Your task to perform on an android device: Search for Mexican restaurants on Maps Image 0: 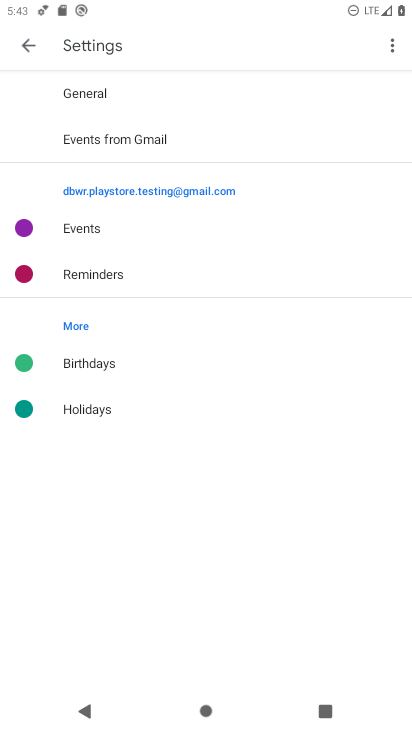
Step 0: press home button
Your task to perform on an android device: Search for Mexican restaurants on Maps Image 1: 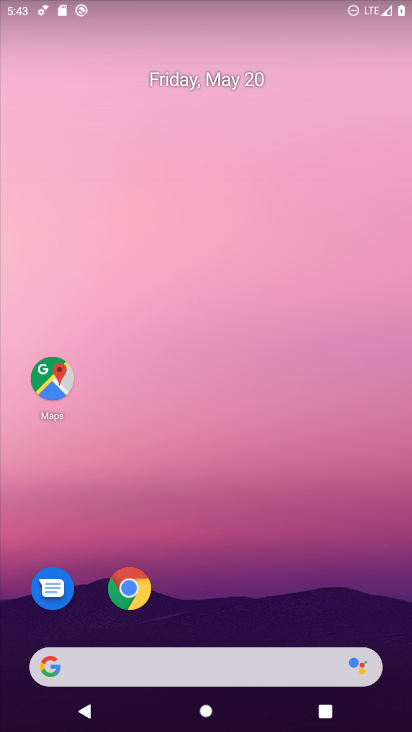
Step 1: drag from (237, 589) to (225, 83)
Your task to perform on an android device: Search for Mexican restaurants on Maps Image 2: 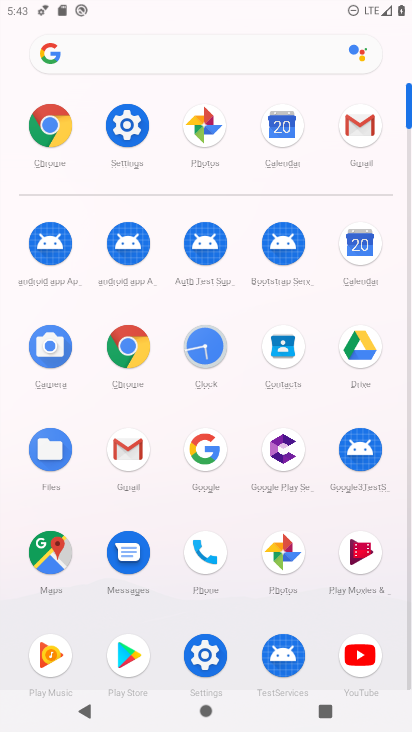
Step 2: click (41, 562)
Your task to perform on an android device: Search for Mexican restaurants on Maps Image 3: 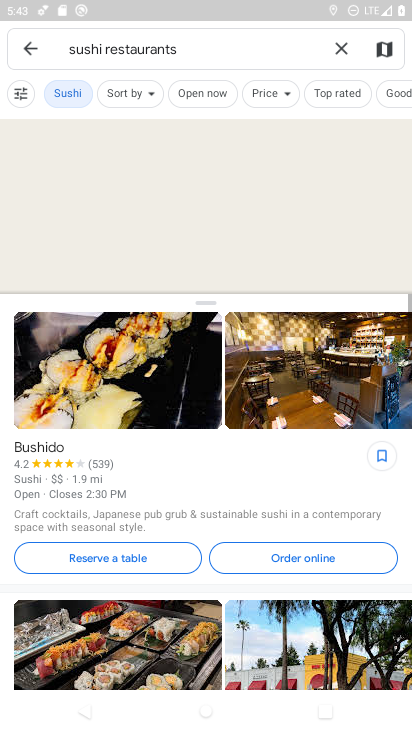
Step 3: click (340, 53)
Your task to perform on an android device: Search for Mexican restaurants on Maps Image 4: 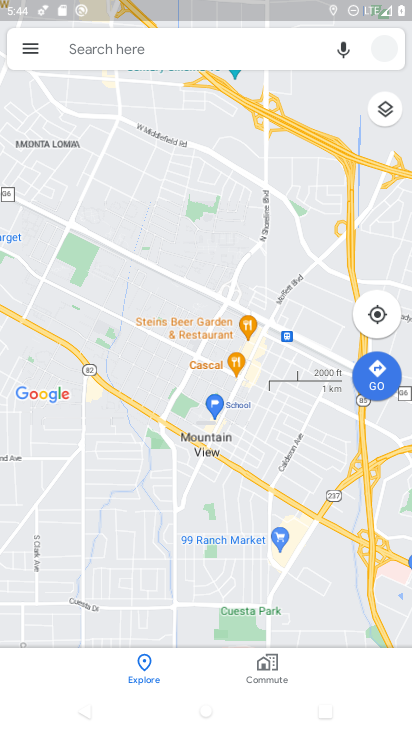
Step 4: click (176, 42)
Your task to perform on an android device: Search for Mexican restaurants on Maps Image 5: 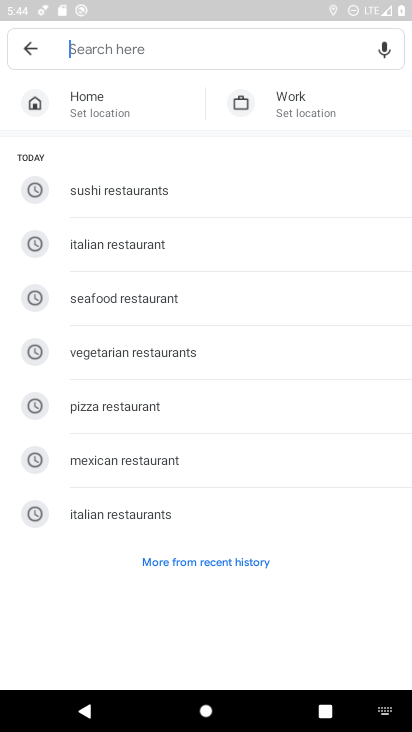
Step 5: type "Mexican restaurants"
Your task to perform on an android device: Search for Mexican restaurants on Maps Image 6: 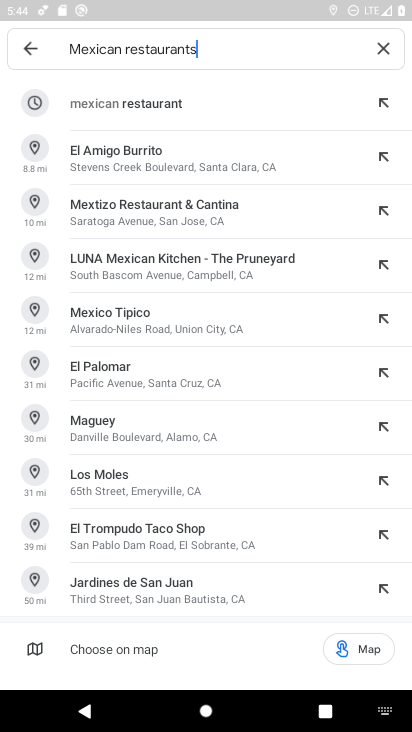
Step 6: click (155, 113)
Your task to perform on an android device: Search for Mexican restaurants on Maps Image 7: 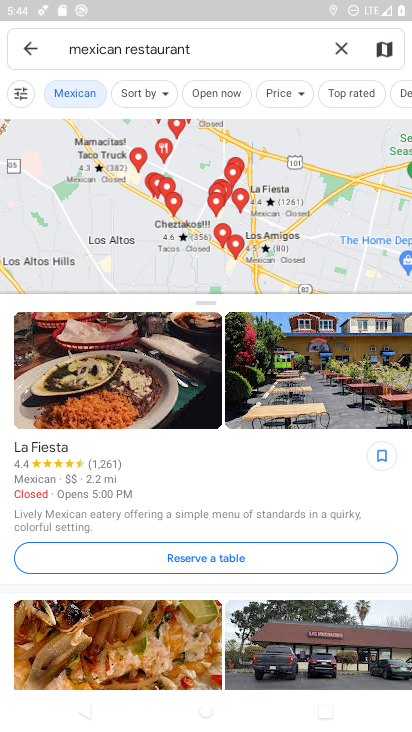
Step 7: task complete